Your task to perform on an android device: toggle priority inbox in the gmail app Image 0: 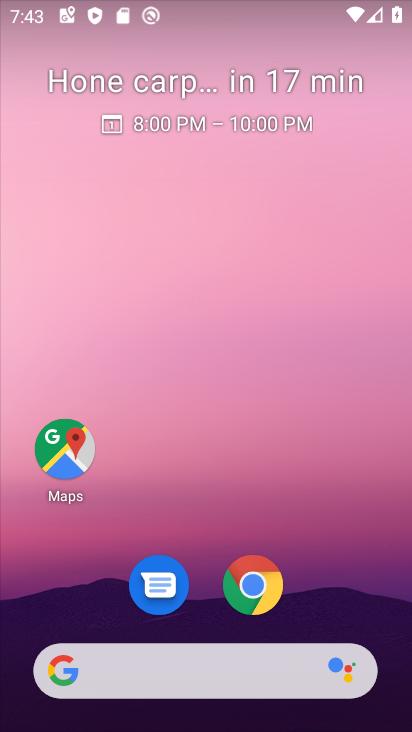
Step 0: drag from (221, 508) to (253, 40)
Your task to perform on an android device: toggle priority inbox in the gmail app Image 1: 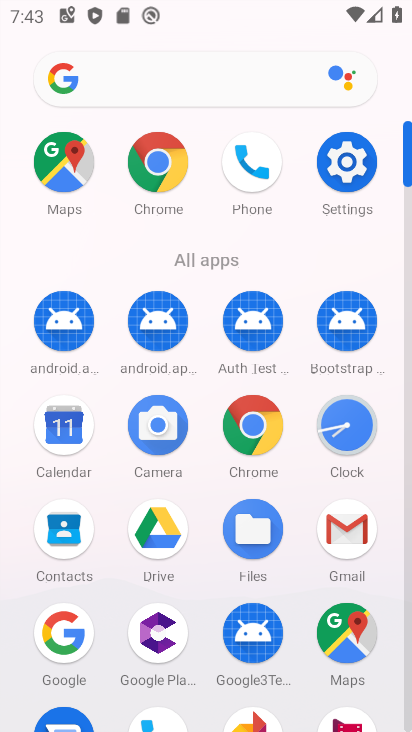
Step 1: click (349, 524)
Your task to perform on an android device: toggle priority inbox in the gmail app Image 2: 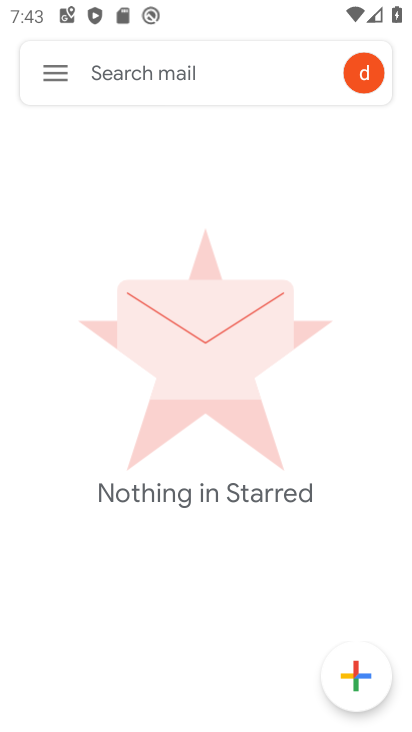
Step 2: click (58, 71)
Your task to perform on an android device: toggle priority inbox in the gmail app Image 3: 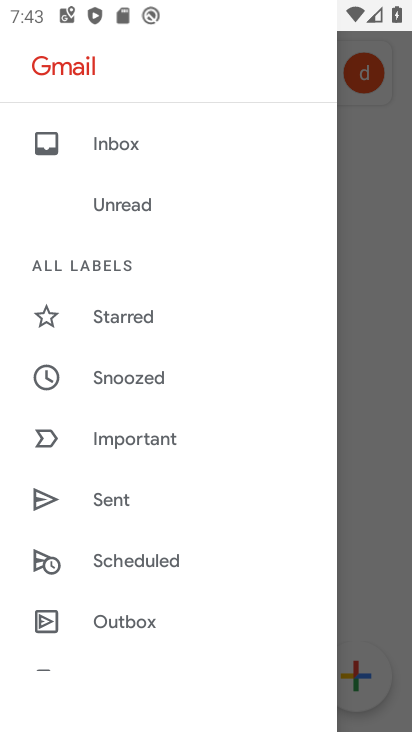
Step 3: drag from (166, 588) to (190, 8)
Your task to perform on an android device: toggle priority inbox in the gmail app Image 4: 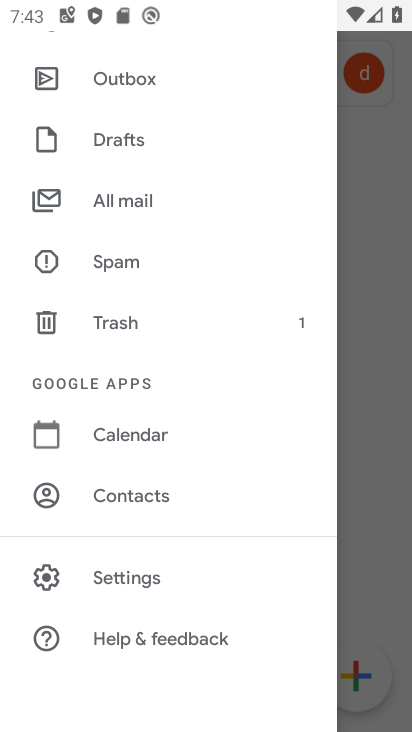
Step 4: click (139, 570)
Your task to perform on an android device: toggle priority inbox in the gmail app Image 5: 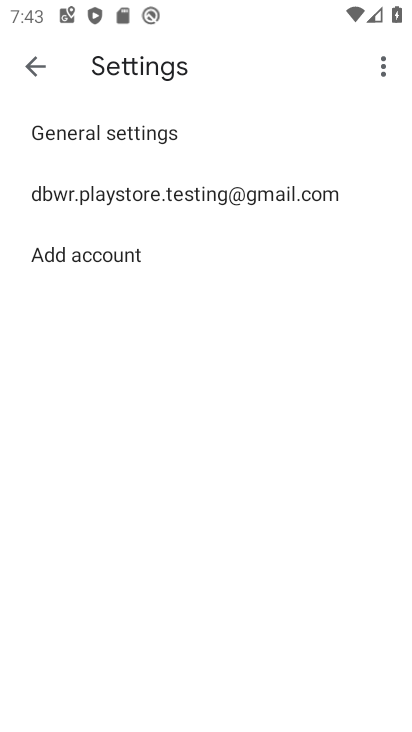
Step 5: click (276, 199)
Your task to perform on an android device: toggle priority inbox in the gmail app Image 6: 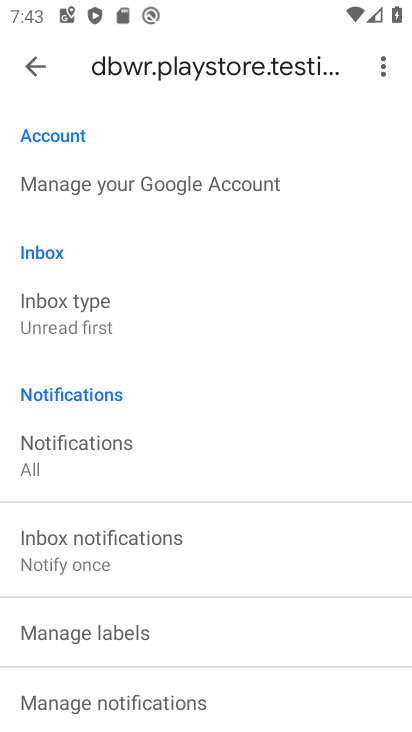
Step 6: click (85, 316)
Your task to perform on an android device: toggle priority inbox in the gmail app Image 7: 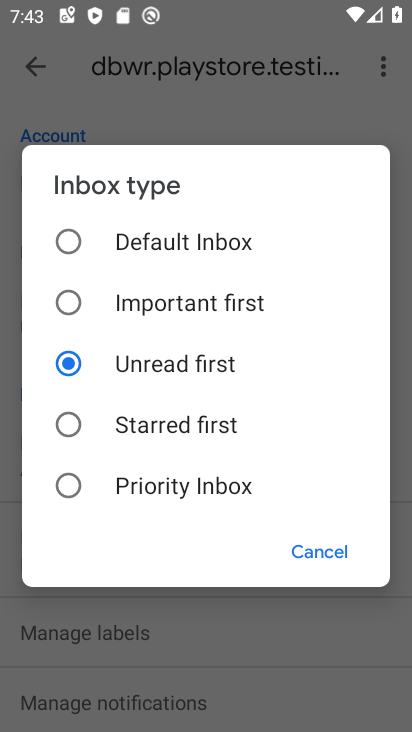
Step 7: click (60, 479)
Your task to perform on an android device: toggle priority inbox in the gmail app Image 8: 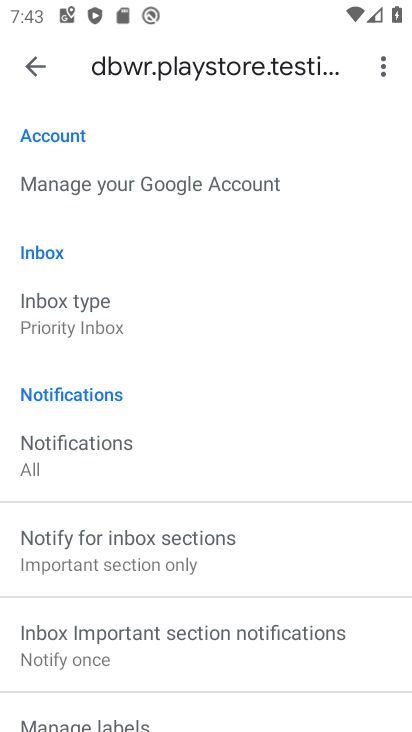
Step 8: task complete